Your task to perform on an android device: turn off airplane mode Image 0: 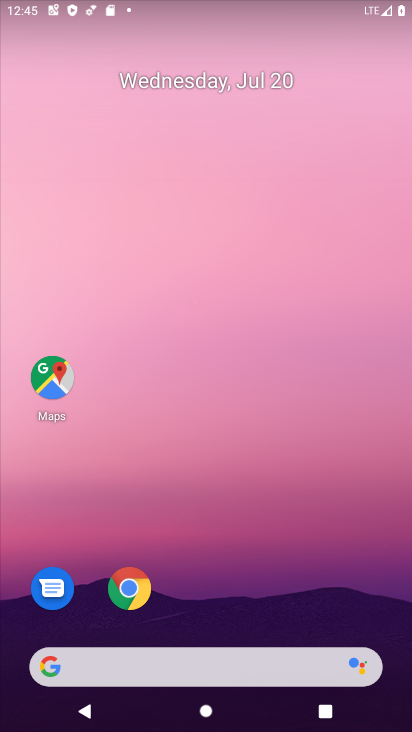
Step 0: drag from (372, 536) to (336, 44)
Your task to perform on an android device: turn off airplane mode Image 1: 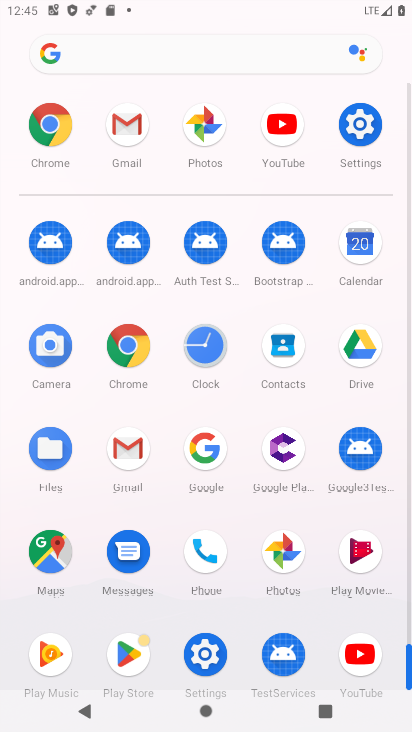
Step 1: click (344, 116)
Your task to perform on an android device: turn off airplane mode Image 2: 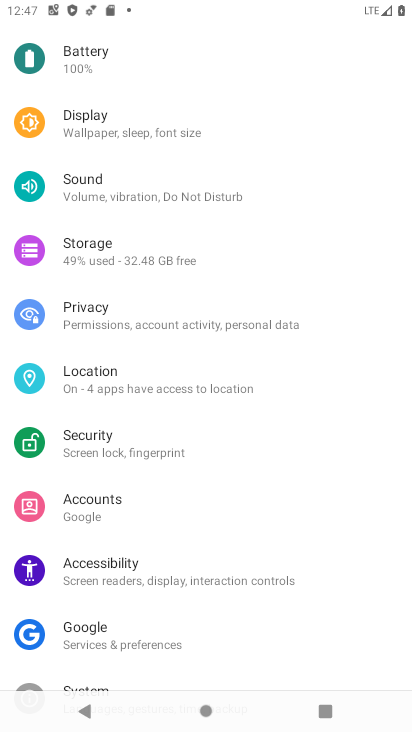
Step 2: drag from (157, 124) to (227, 584)
Your task to perform on an android device: turn off airplane mode Image 3: 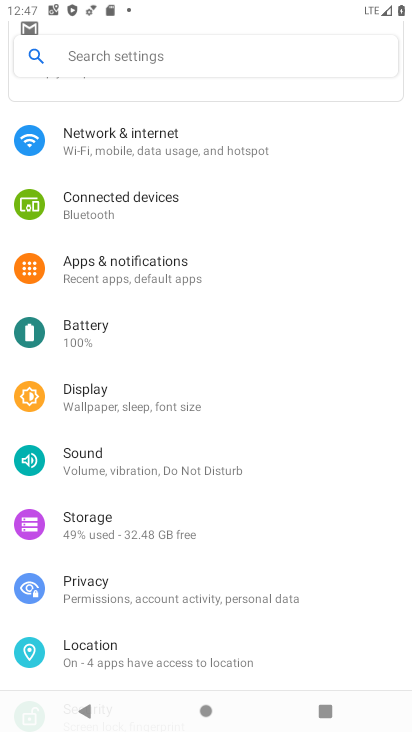
Step 3: click (93, 144)
Your task to perform on an android device: turn off airplane mode Image 4: 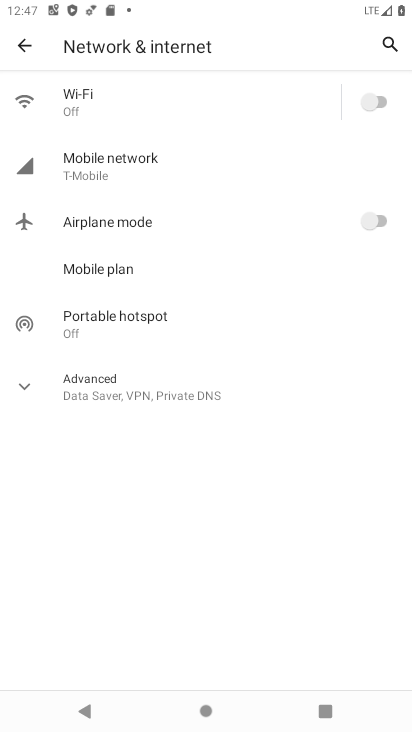
Step 4: task complete